Your task to perform on an android device: Open my contact list Image 0: 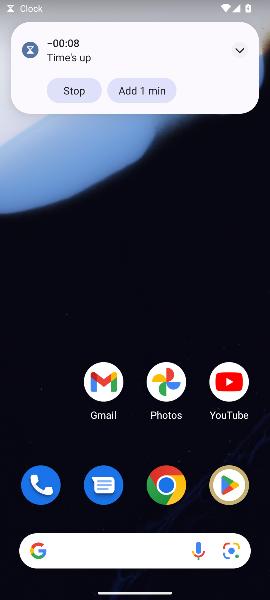
Step 0: drag from (130, 484) to (167, 17)
Your task to perform on an android device: Open my contact list Image 1: 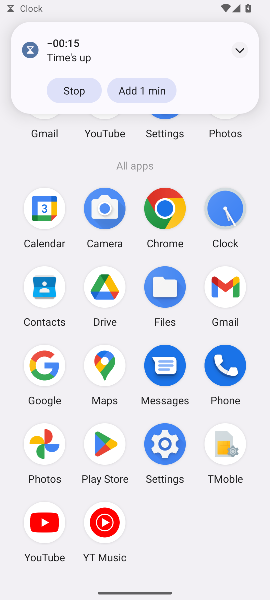
Step 1: click (38, 297)
Your task to perform on an android device: Open my contact list Image 2: 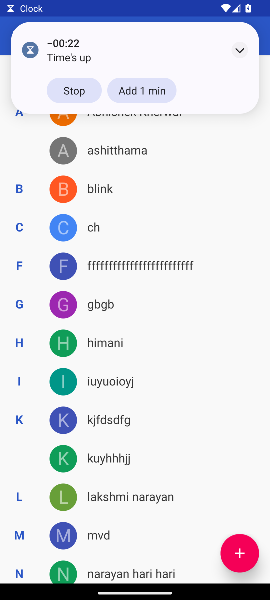
Step 2: drag from (90, 372) to (117, 173)
Your task to perform on an android device: Open my contact list Image 3: 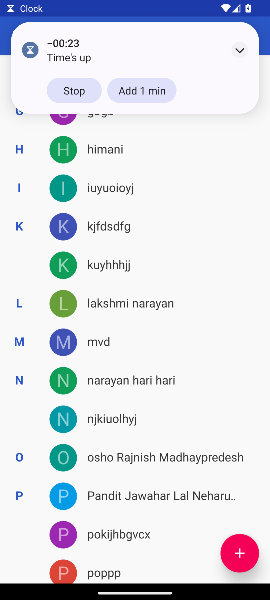
Step 3: click (85, 85)
Your task to perform on an android device: Open my contact list Image 4: 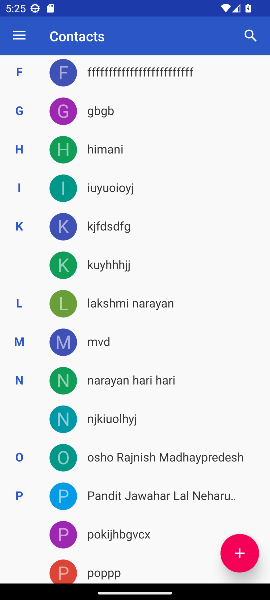
Step 4: task complete